Your task to perform on an android device: Open CNN.com Image 0: 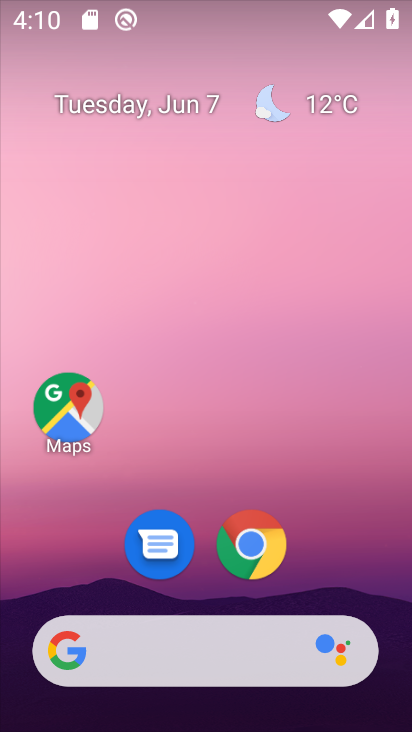
Step 0: drag from (371, 579) to (218, 0)
Your task to perform on an android device: Open CNN.com Image 1: 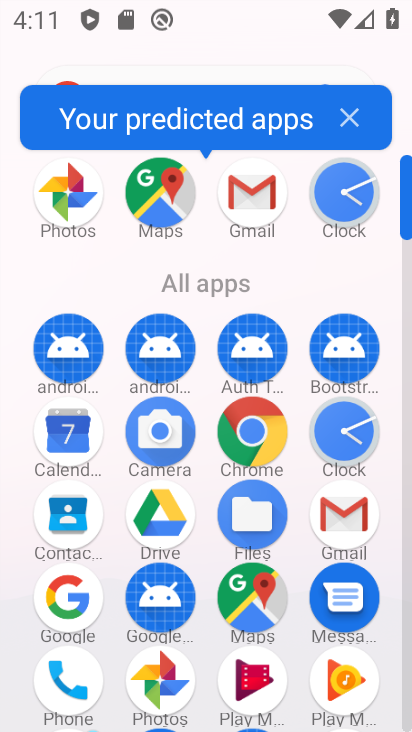
Step 1: click (201, 95)
Your task to perform on an android device: Open CNN.com Image 2: 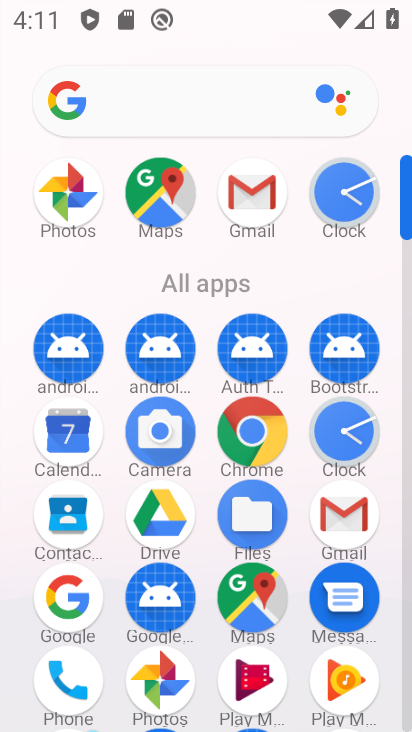
Step 2: type "cnn.com"
Your task to perform on an android device: Open CNN.com Image 3: 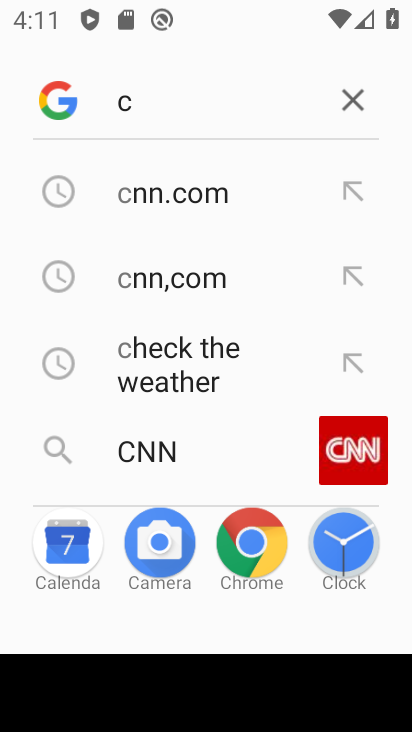
Step 3: task complete